Your task to perform on an android device: When is my next meeting? Image 0: 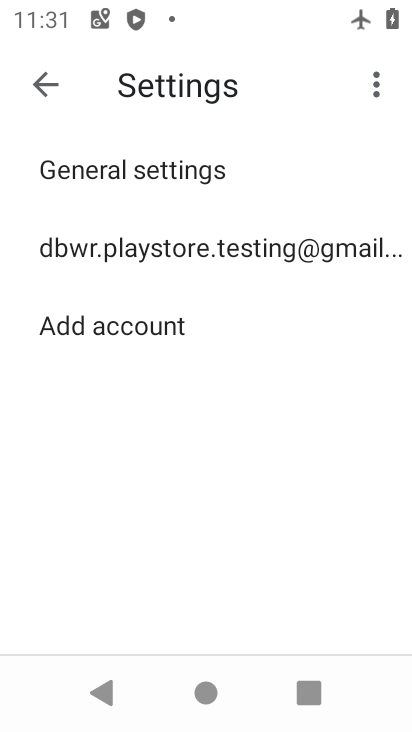
Step 0: press home button
Your task to perform on an android device: When is my next meeting? Image 1: 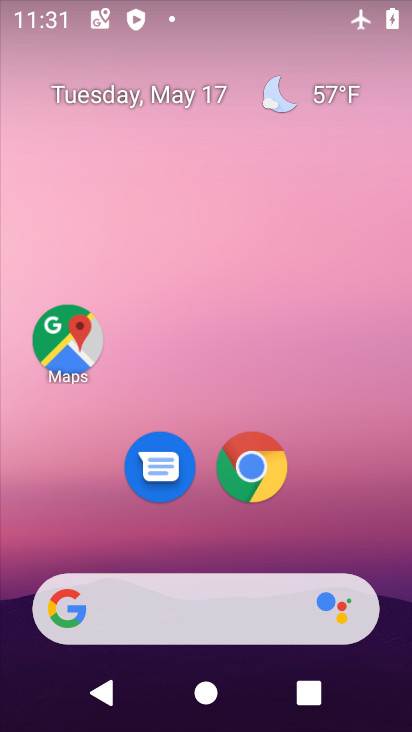
Step 1: drag from (239, 648) to (266, 254)
Your task to perform on an android device: When is my next meeting? Image 2: 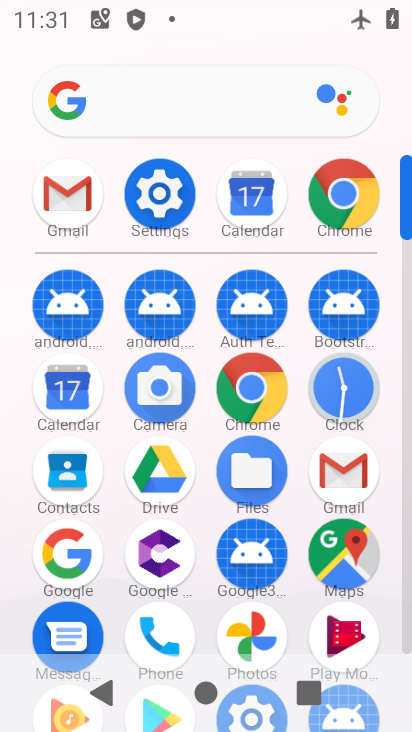
Step 2: click (75, 390)
Your task to perform on an android device: When is my next meeting? Image 3: 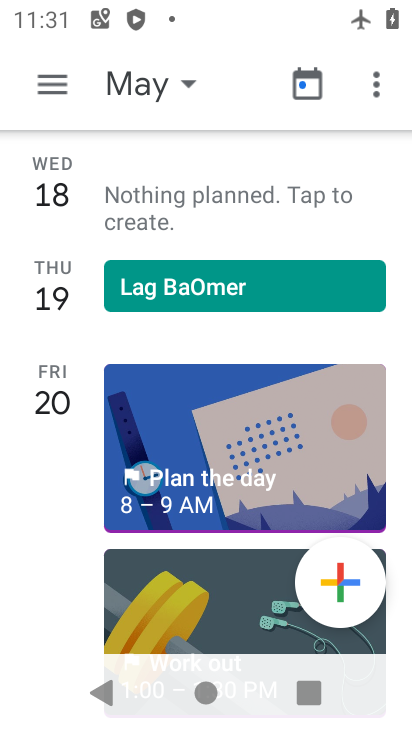
Step 3: task complete